Your task to perform on an android device: manage bookmarks in the chrome app Image 0: 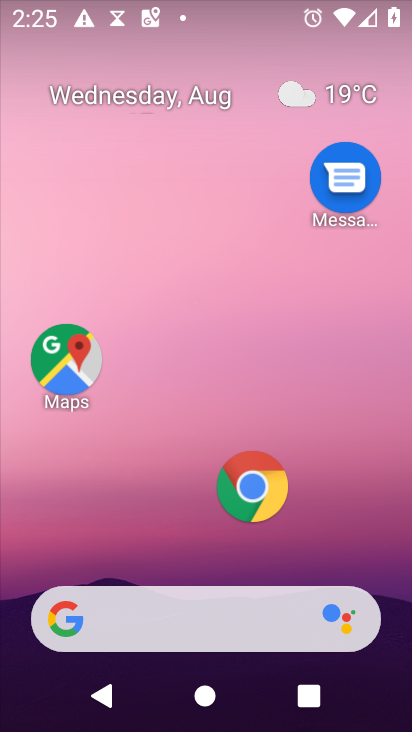
Step 0: click (232, 490)
Your task to perform on an android device: manage bookmarks in the chrome app Image 1: 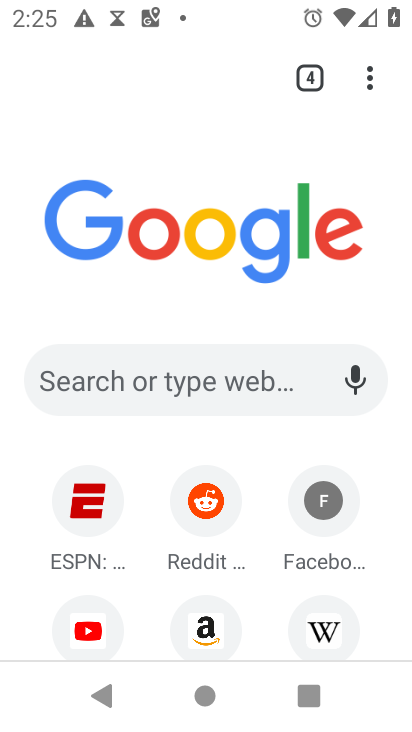
Step 1: drag from (366, 65) to (176, 305)
Your task to perform on an android device: manage bookmarks in the chrome app Image 2: 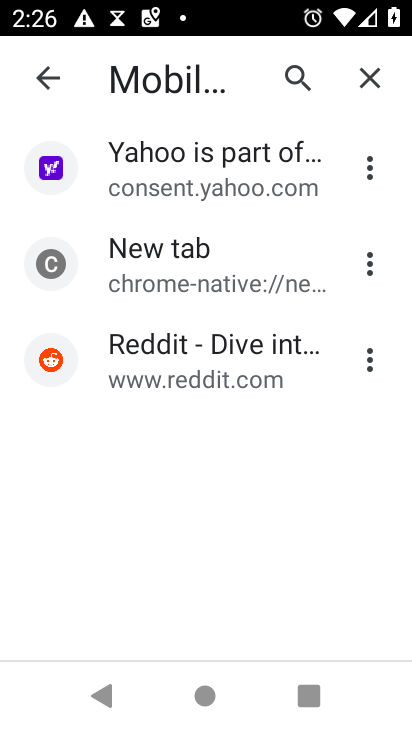
Step 2: click (369, 262)
Your task to perform on an android device: manage bookmarks in the chrome app Image 3: 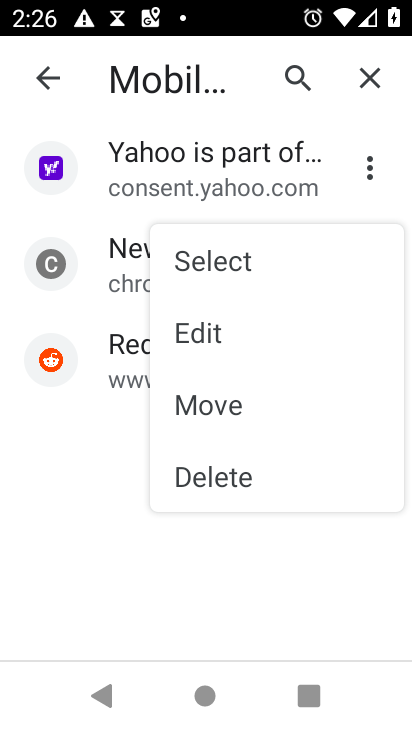
Step 3: click (188, 465)
Your task to perform on an android device: manage bookmarks in the chrome app Image 4: 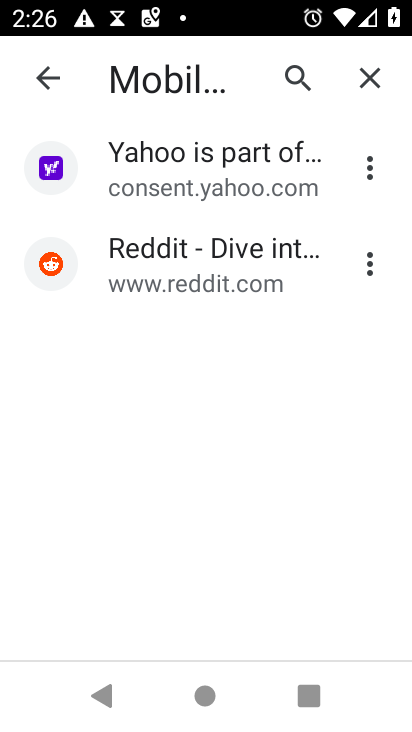
Step 4: task complete